Your task to perform on an android device: Go to Maps Image 0: 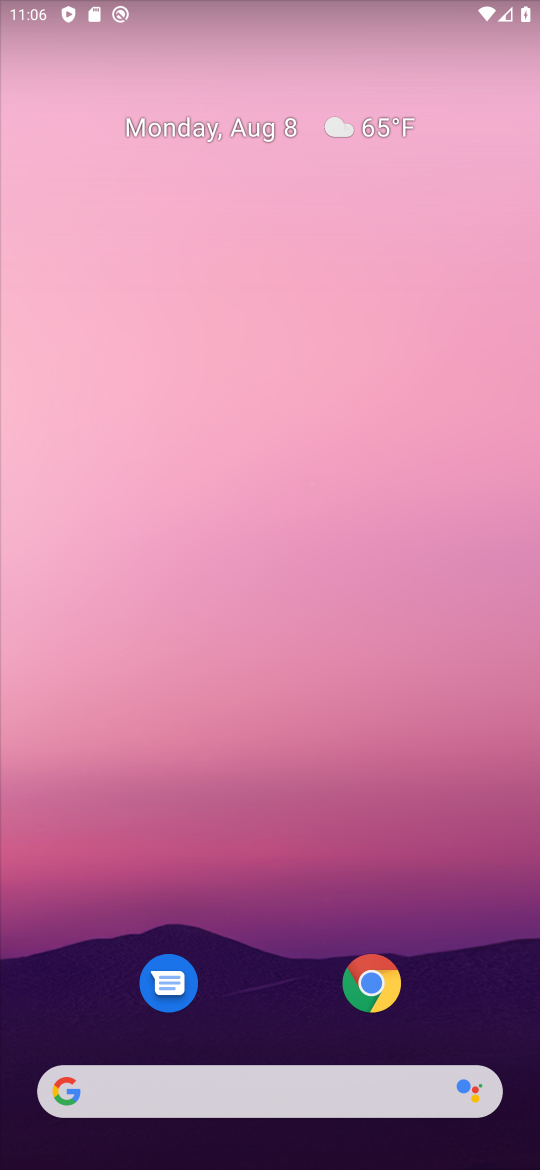
Step 0: drag from (308, 1034) to (314, 91)
Your task to perform on an android device: Go to Maps Image 1: 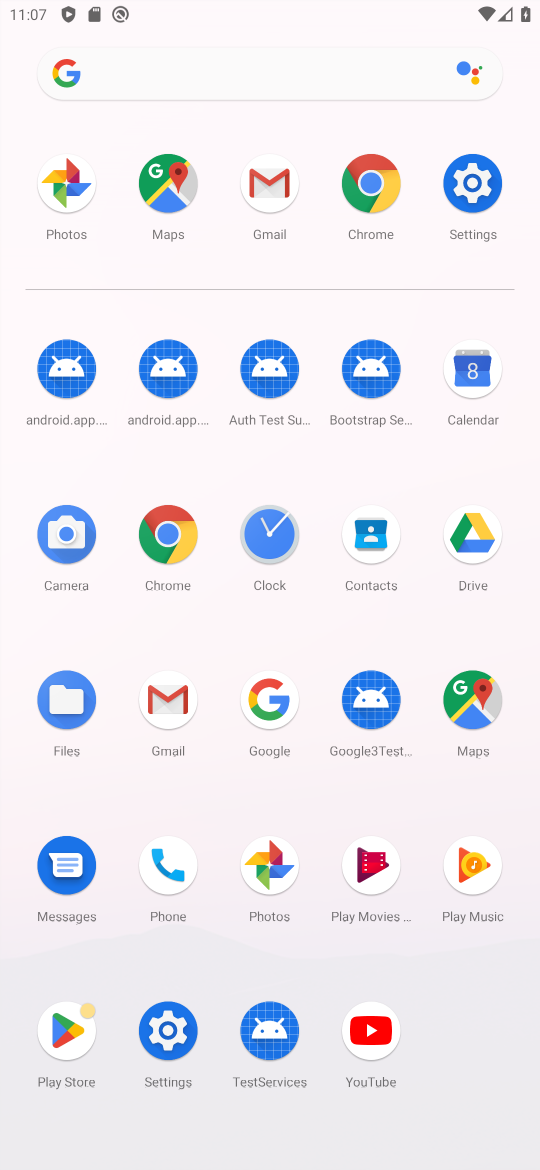
Step 1: click (469, 694)
Your task to perform on an android device: Go to Maps Image 2: 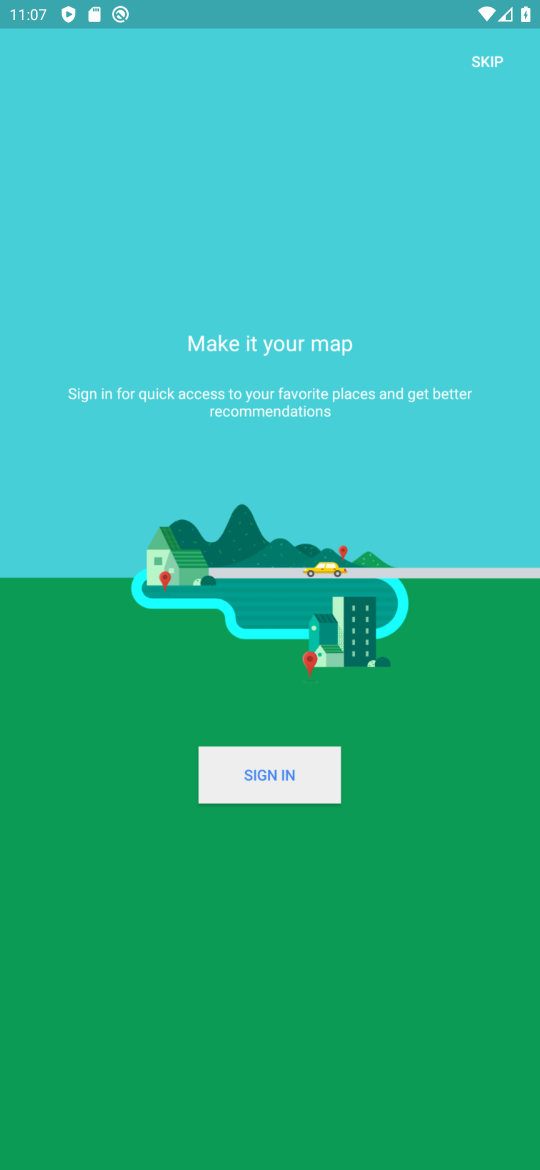
Step 2: task complete